Your task to perform on an android device: Search for sushi restaurants on Maps Image 0: 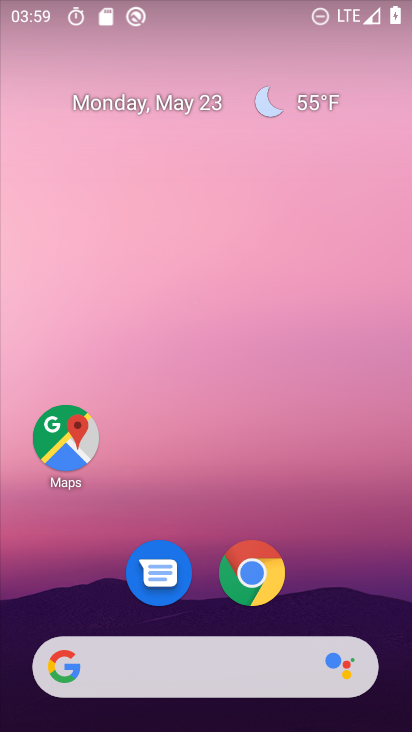
Step 0: click (77, 437)
Your task to perform on an android device: Search for sushi restaurants on Maps Image 1: 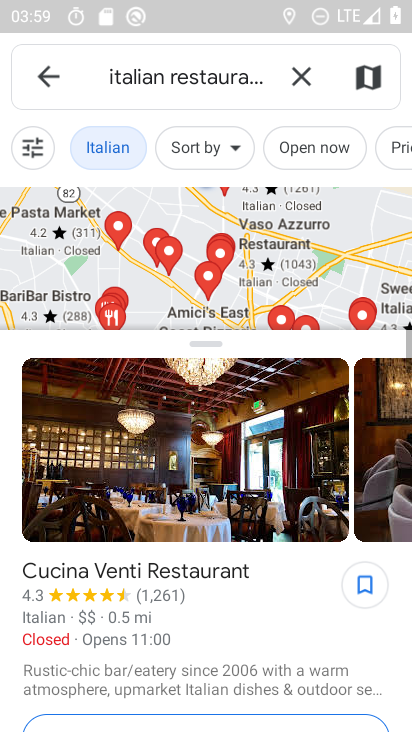
Step 1: click (304, 77)
Your task to perform on an android device: Search for sushi restaurants on Maps Image 2: 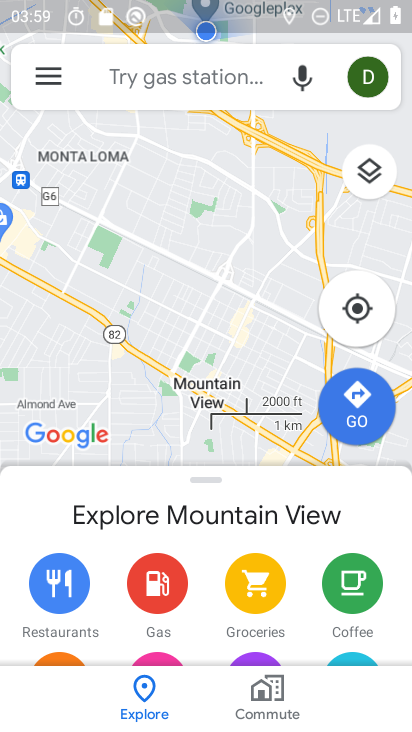
Step 2: click (207, 84)
Your task to perform on an android device: Search for sushi restaurants on Maps Image 3: 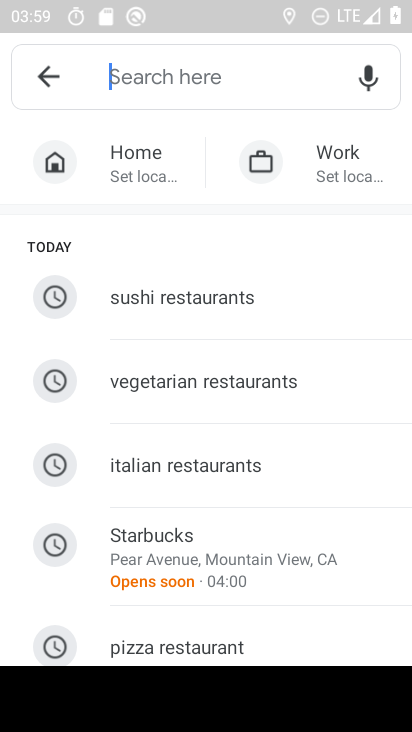
Step 3: click (213, 298)
Your task to perform on an android device: Search for sushi restaurants on Maps Image 4: 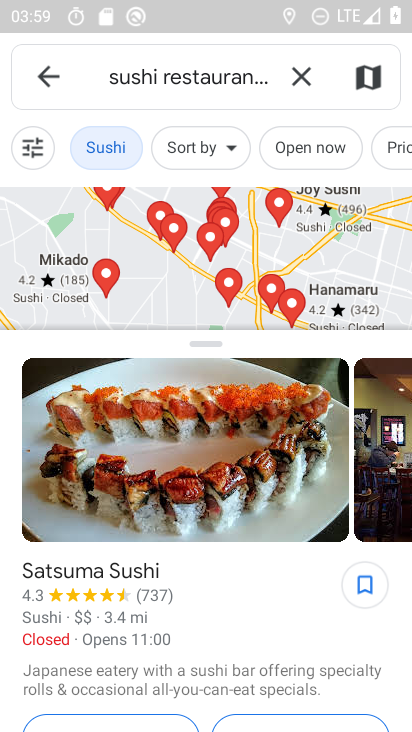
Step 4: task complete